Your task to perform on an android device: star an email in the gmail app Image 0: 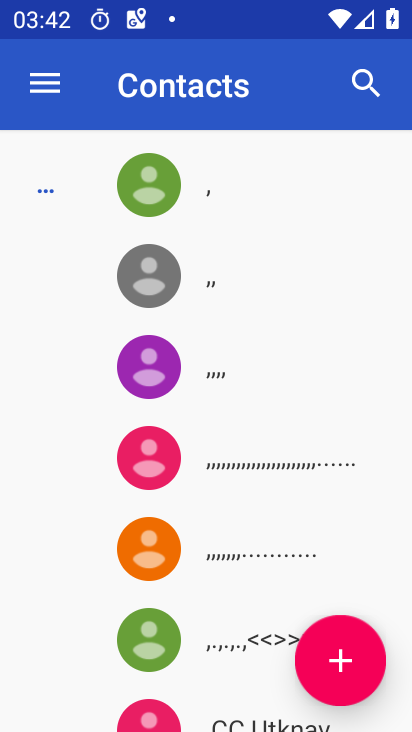
Step 0: press home button
Your task to perform on an android device: star an email in the gmail app Image 1: 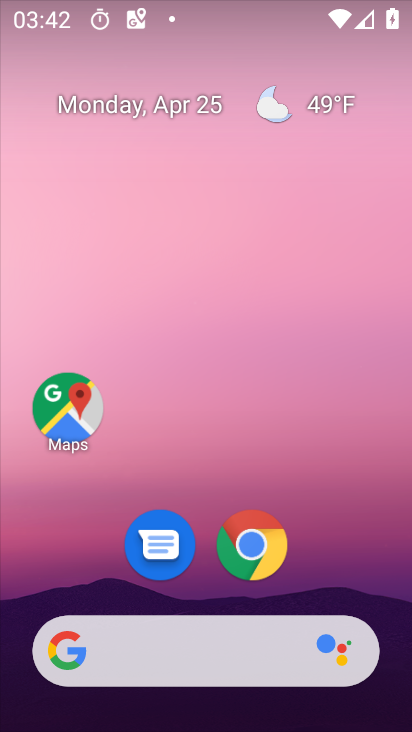
Step 1: drag from (201, 429) to (219, 114)
Your task to perform on an android device: star an email in the gmail app Image 2: 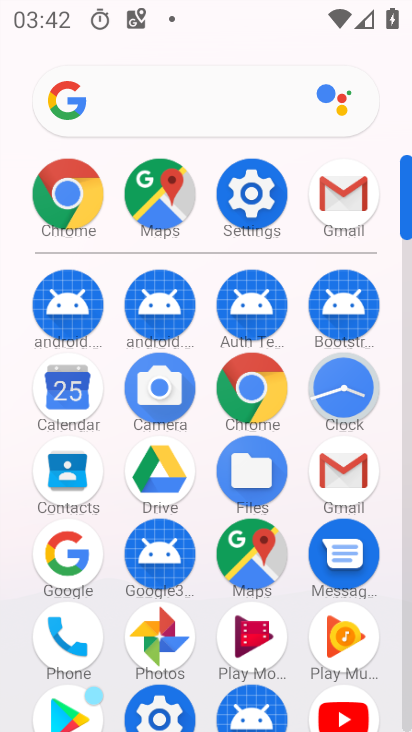
Step 2: click (339, 215)
Your task to perform on an android device: star an email in the gmail app Image 3: 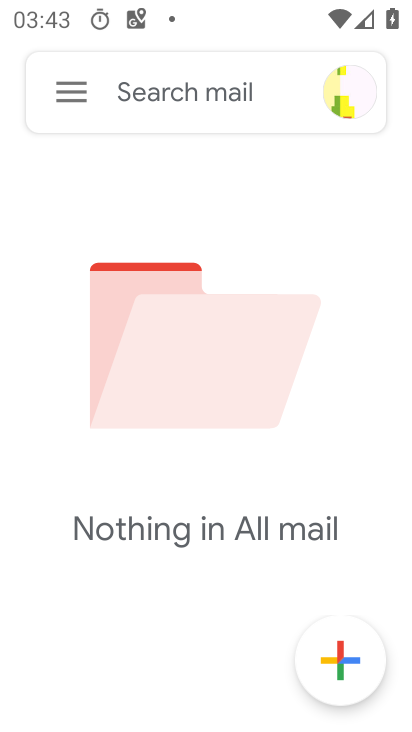
Step 3: click (75, 83)
Your task to perform on an android device: star an email in the gmail app Image 4: 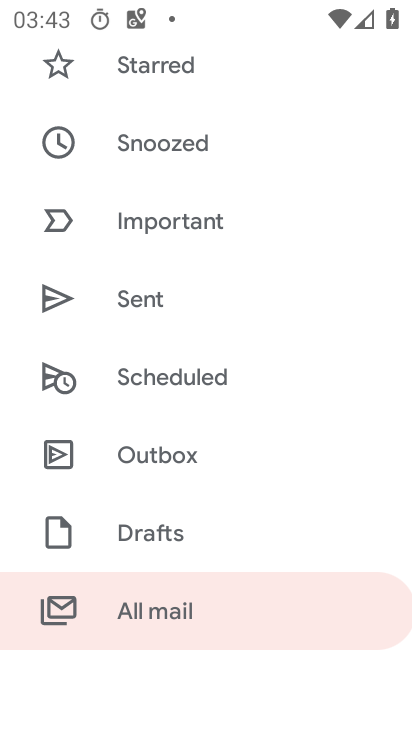
Step 4: click (208, 66)
Your task to perform on an android device: star an email in the gmail app Image 5: 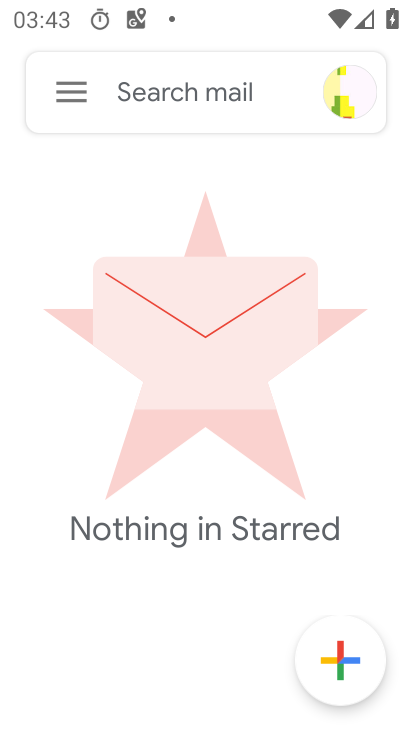
Step 5: click (77, 84)
Your task to perform on an android device: star an email in the gmail app Image 6: 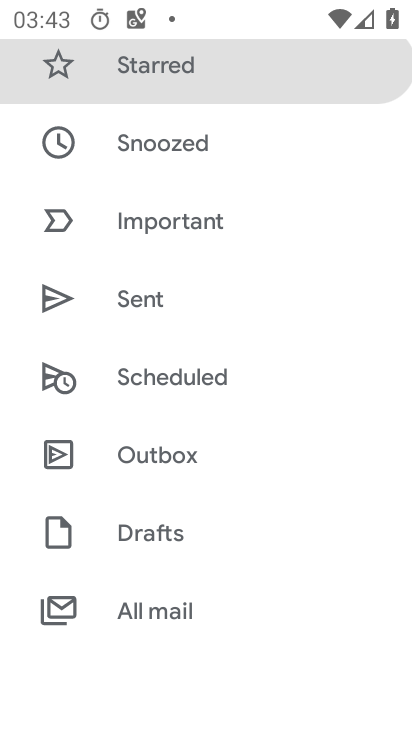
Step 6: task complete